Your task to perform on an android device: install app "Google Chat" Image 0: 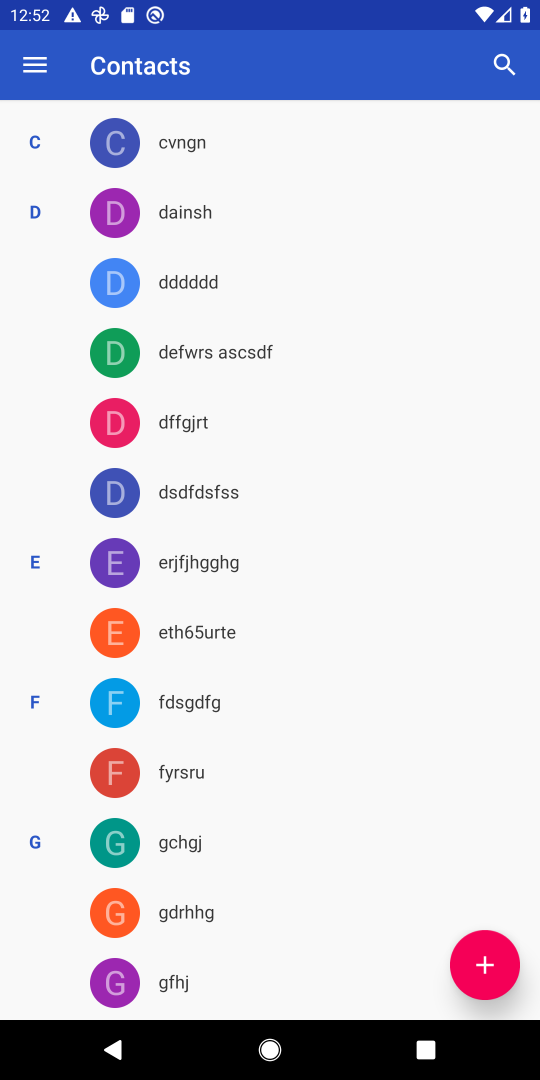
Step 0: press home button
Your task to perform on an android device: install app "Google Chat" Image 1: 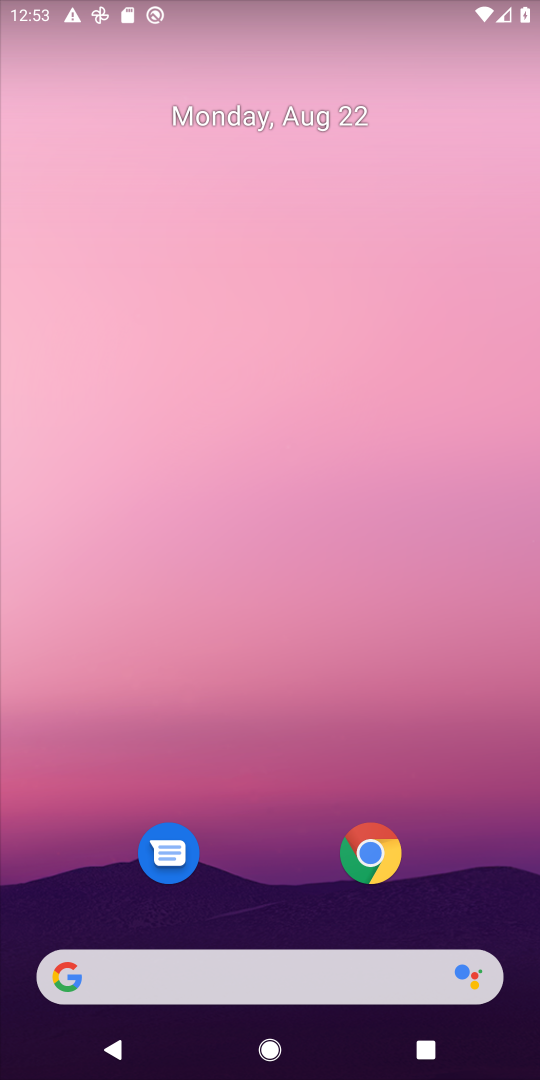
Step 1: drag from (217, 860) to (258, 383)
Your task to perform on an android device: install app "Google Chat" Image 2: 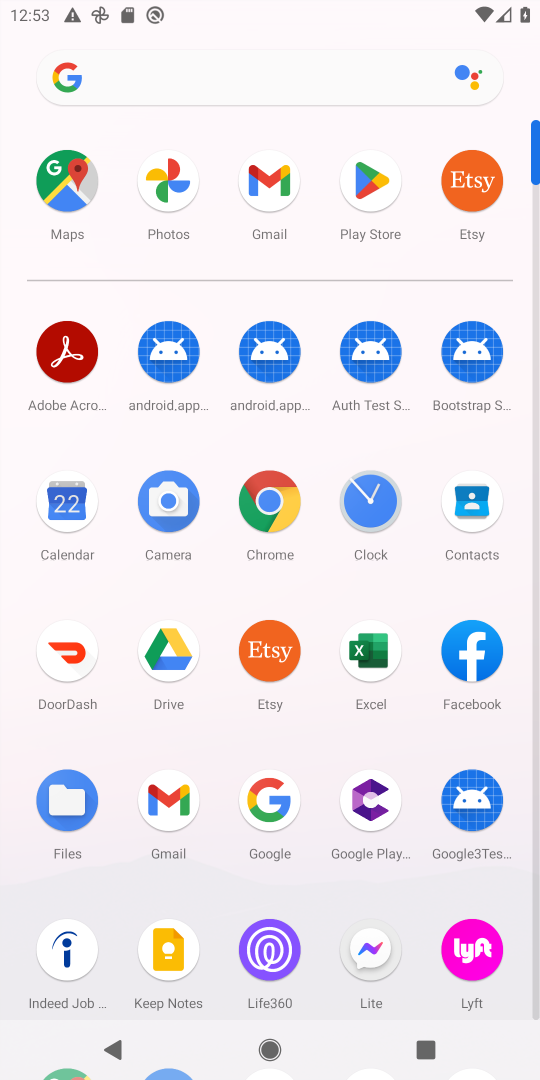
Step 2: click (365, 168)
Your task to perform on an android device: install app "Google Chat" Image 3: 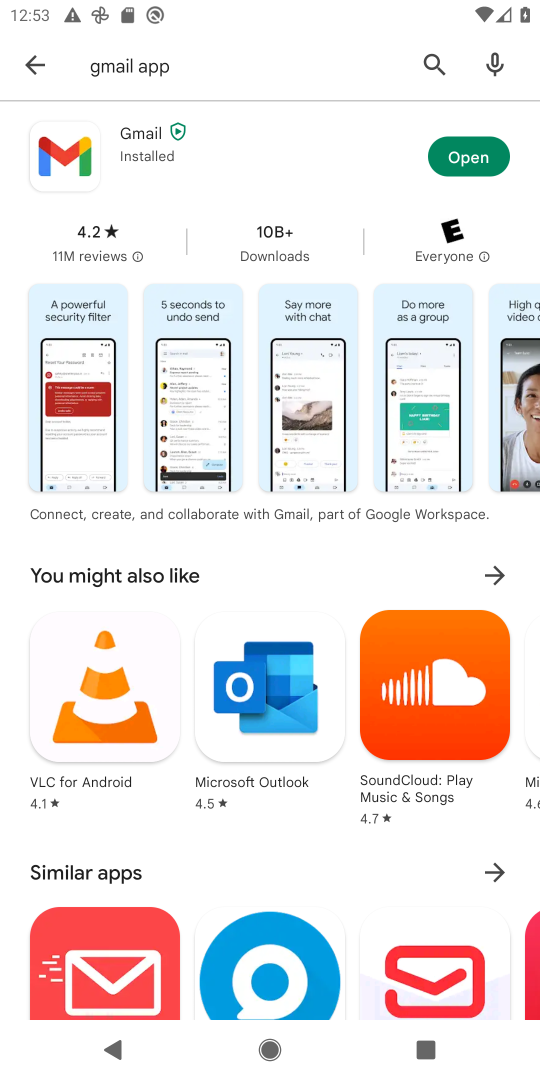
Step 3: click (50, 71)
Your task to perform on an android device: install app "Google Chat" Image 4: 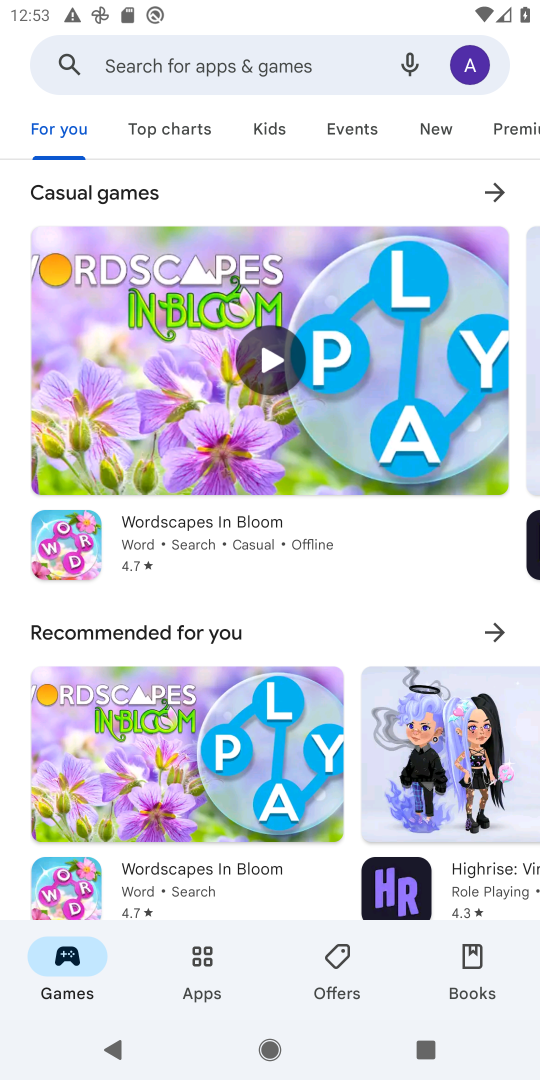
Step 4: click (251, 70)
Your task to perform on an android device: install app "Google Chat" Image 5: 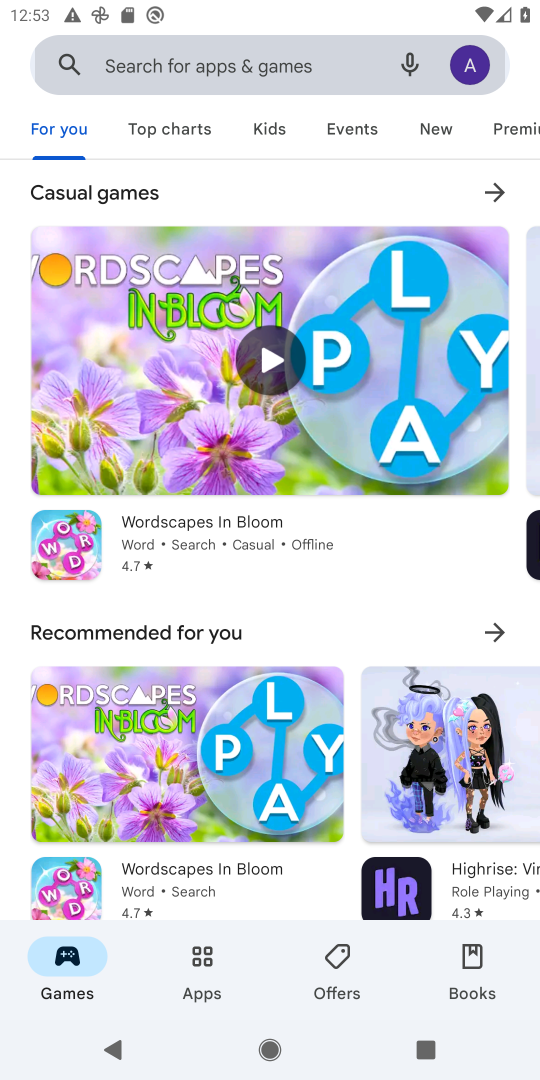
Step 5: click (251, 55)
Your task to perform on an android device: install app "Google Chat" Image 6: 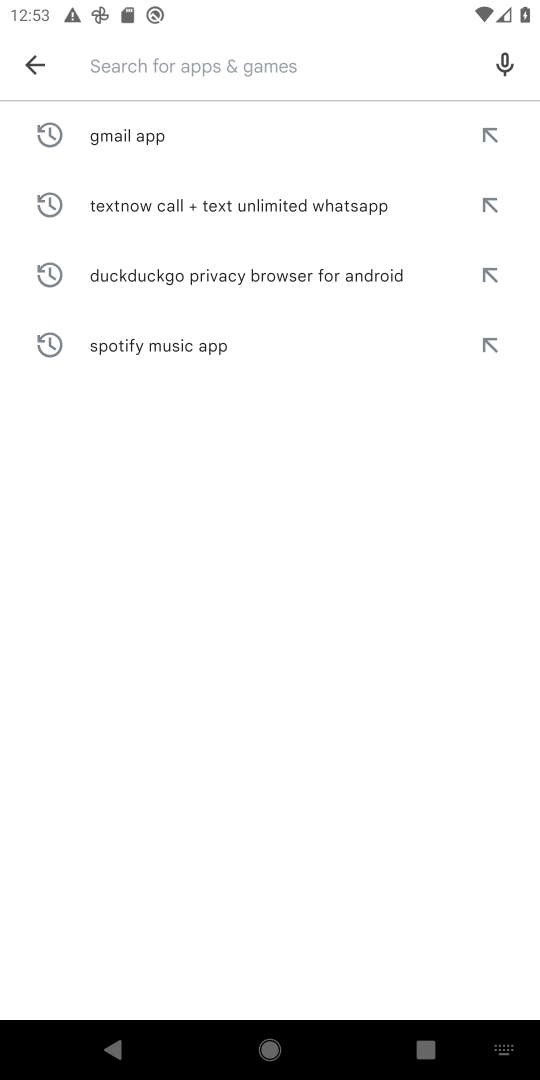
Step 6: type "Google Chat "
Your task to perform on an android device: install app "Google Chat" Image 7: 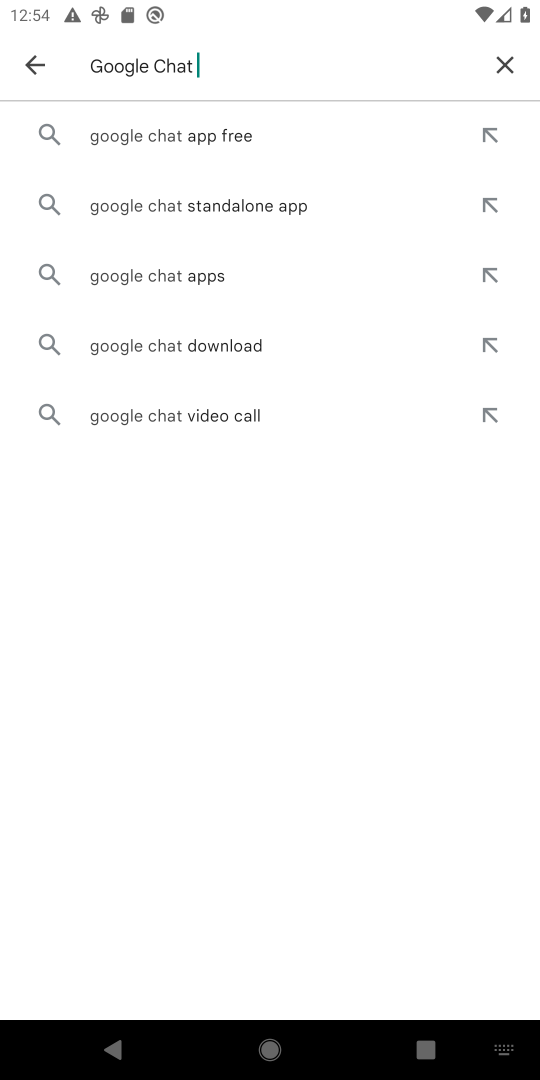
Step 7: click (201, 142)
Your task to perform on an android device: install app "Google Chat" Image 8: 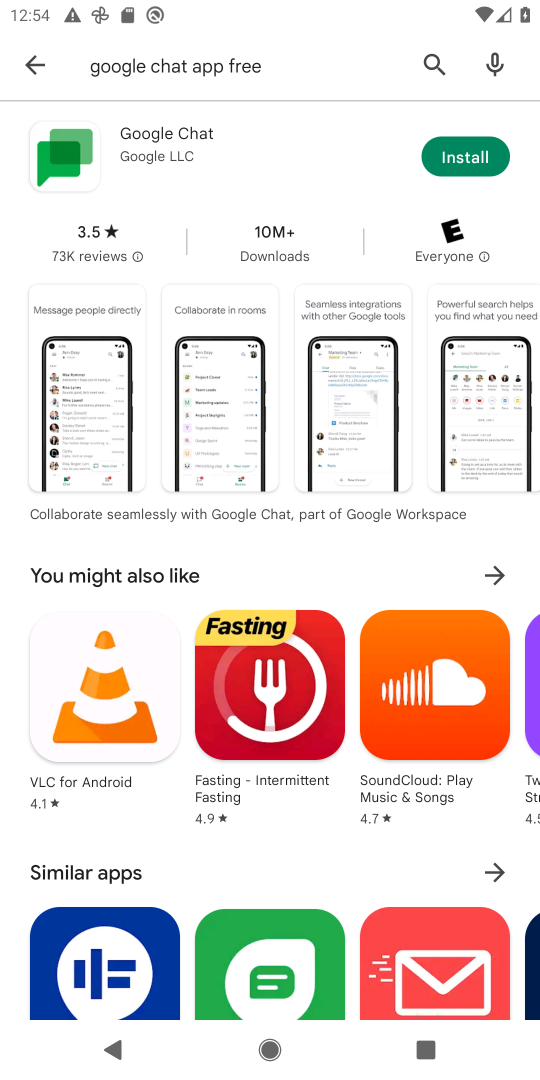
Step 8: click (460, 132)
Your task to perform on an android device: install app "Google Chat" Image 9: 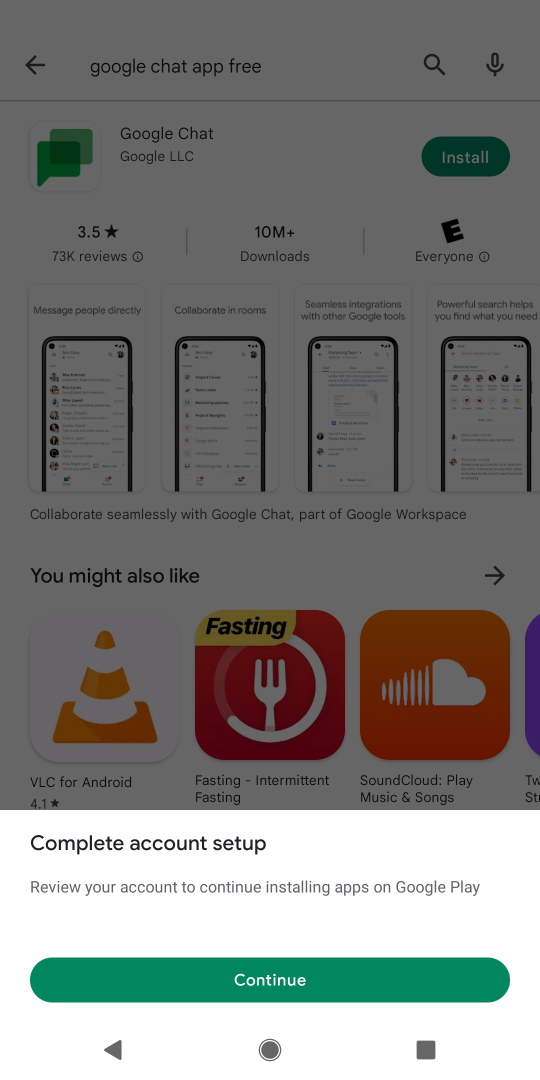
Step 9: task complete